Your task to perform on an android device: change keyboard looks Image 0: 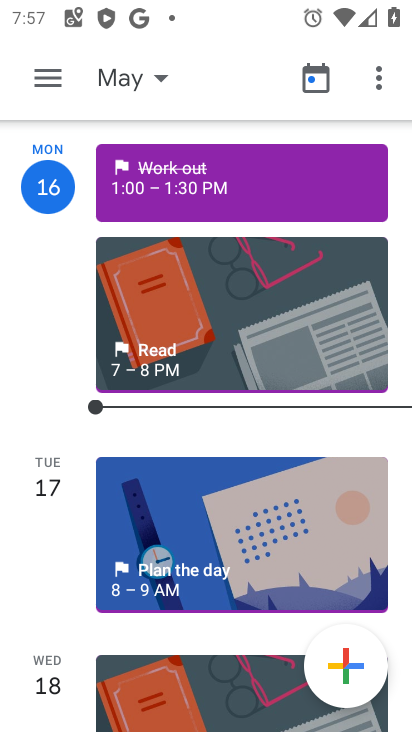
Step 0: press home button
Your task to perform on an android device: change keyboard looks Image 1: 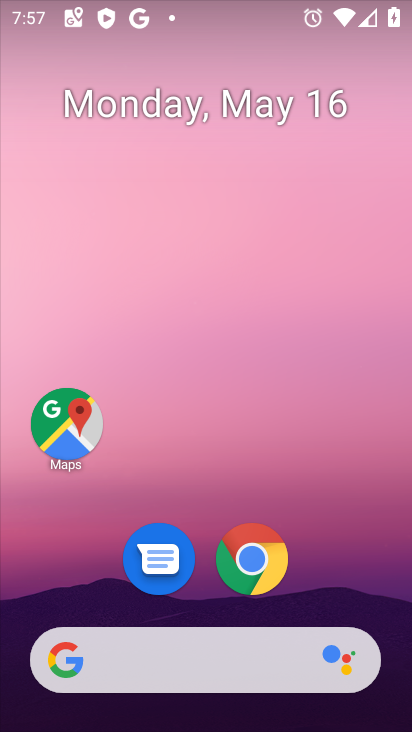
Step 1: drag from (303, 551) to (289, 198)
Your task to perform on an android device: change keyboard looks Image 2: 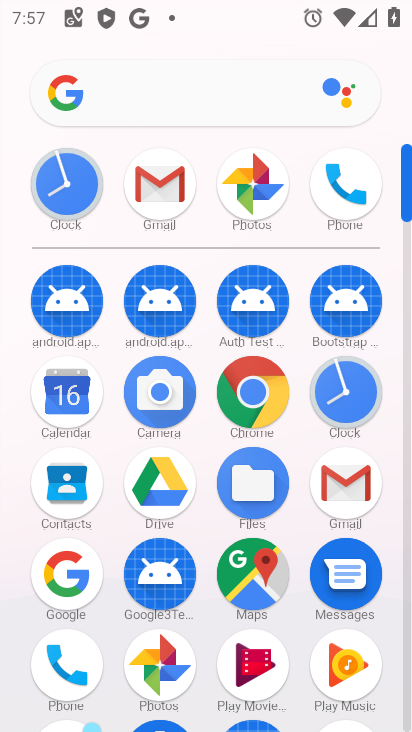
Step 2: drag from (158, 685) to (229, 318)
Your task to perform on an android device: change keyboard looks Image 3: 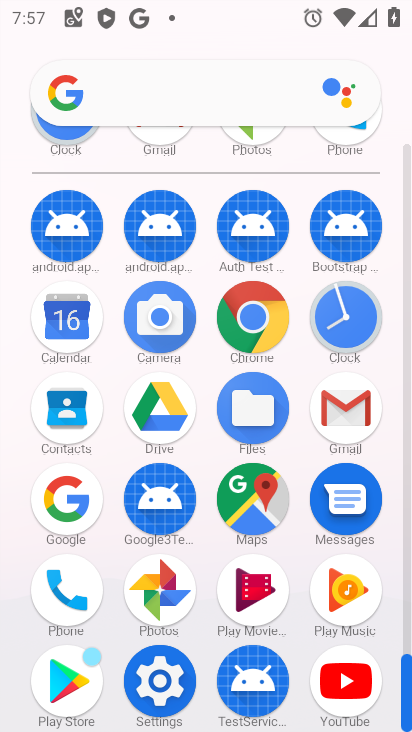
Step 3: click (170, 687)
Your task to perform on an android device: change keyboard looks Image 4: 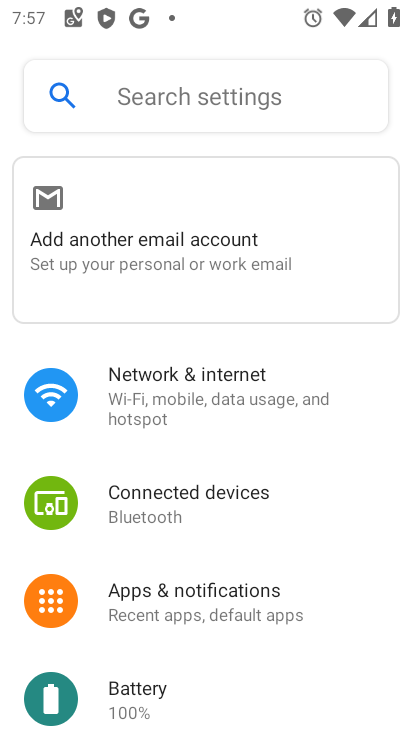
Step 4: drag from (245, 691) to (347, 225)
Your task to perform on an android device: change keyboard looks Image 5: 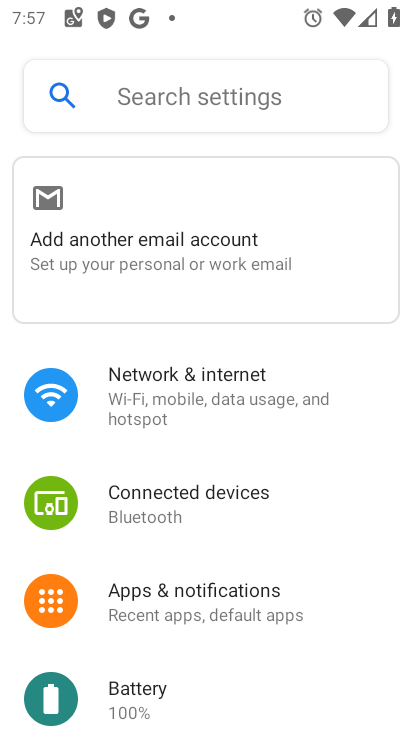
Step 5: drag from (254, 661) to (325, 181)
Your task to perform on an android device: change keyboard looks Image 6: 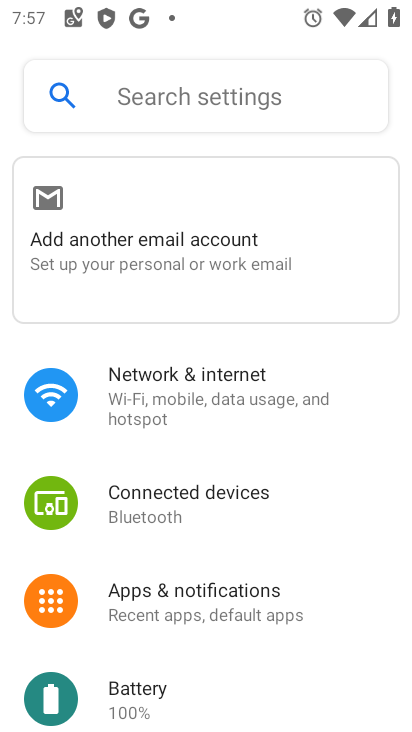
Step 6: drag from (235, 656) to (241, 216)
Your task to perform on an android device: change keyboard looks Image 7: 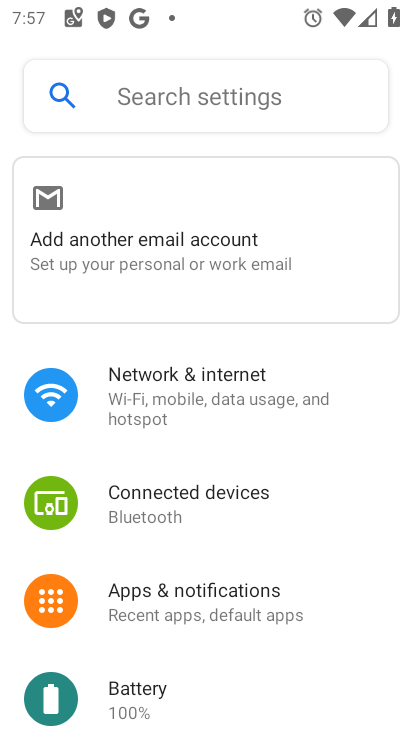
Step 7: drag from (311, 362) to (300, 640)
Your task to perform on an android device: change keyboard looks Image 8: 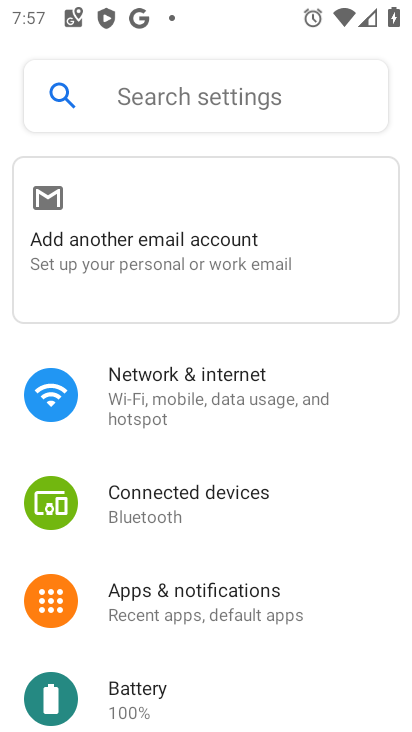
Step 8: drag from (307, 643) to (346, 155)
Your task to perform on an android device: change keyboard looks Image 9: 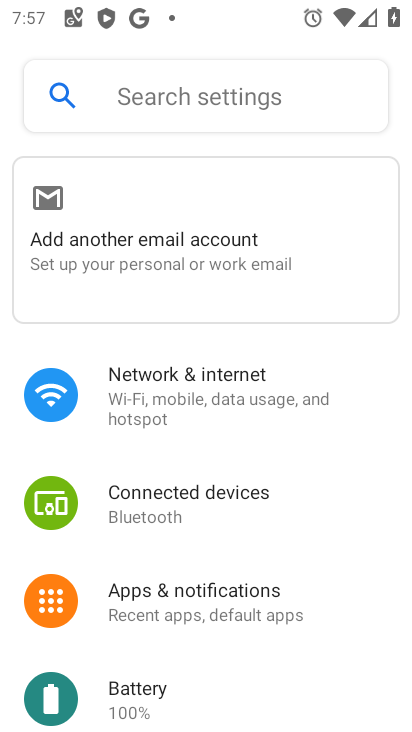
Step 9: drag from (225, 651) to (291, 165)
Your task to perform on an android device: change keyboard looks Image 10: 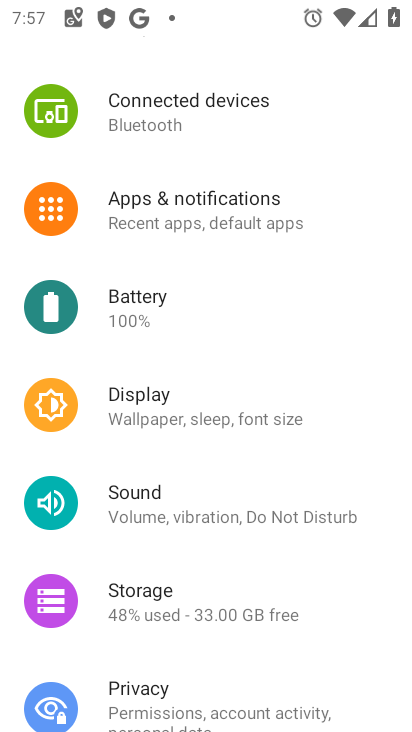
Step 10: drag from (181, 609) to (234, 274)
Your task to perform on an android device: change keyboard looks Image 11: 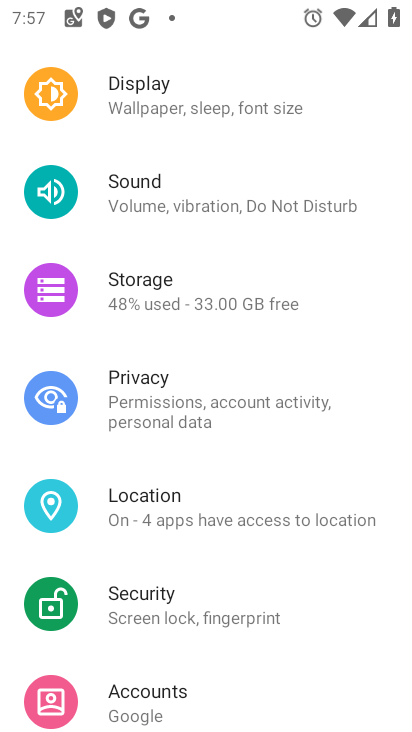
Step 11: drag from (176, 671) to (235, 170)
Your task to perform on an android device: change keyboard looks Image 12: 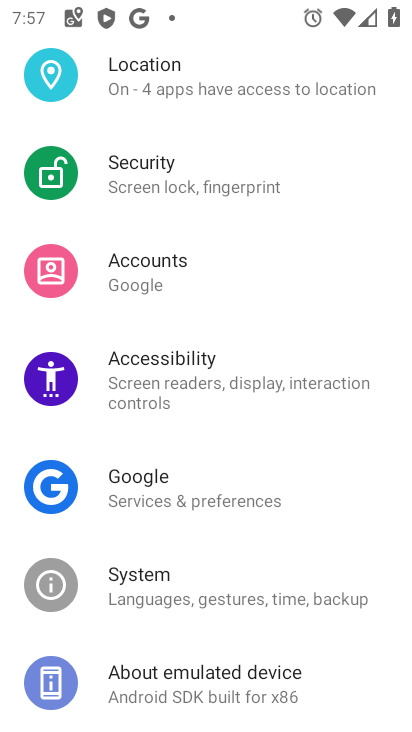
Step 12: click (175, 596)
Your task to perform on an android device: change keyboard looks Image 13: 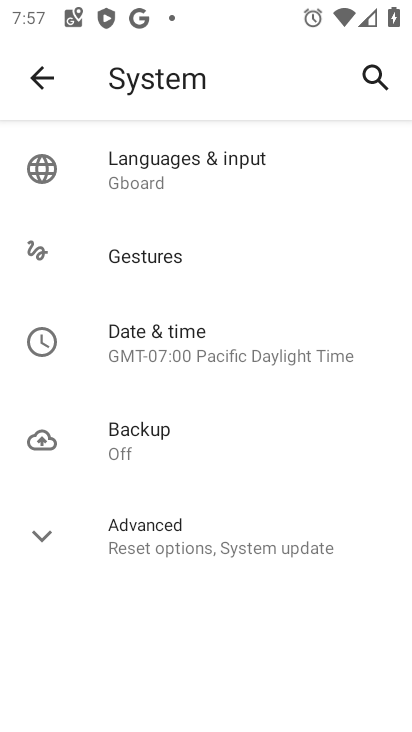
Step 13: click (189, 164)
Your task to perform on an android device: change keyboard looks Image 14: 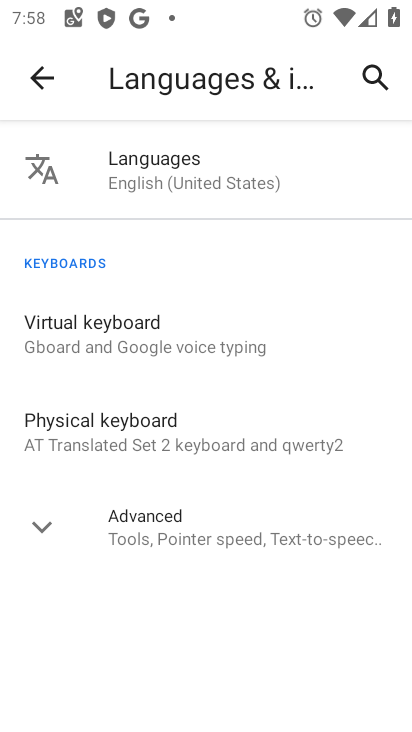
Step 14: click (186, 346)
Your task to perform on an android device: change keyboard looks Image 15: 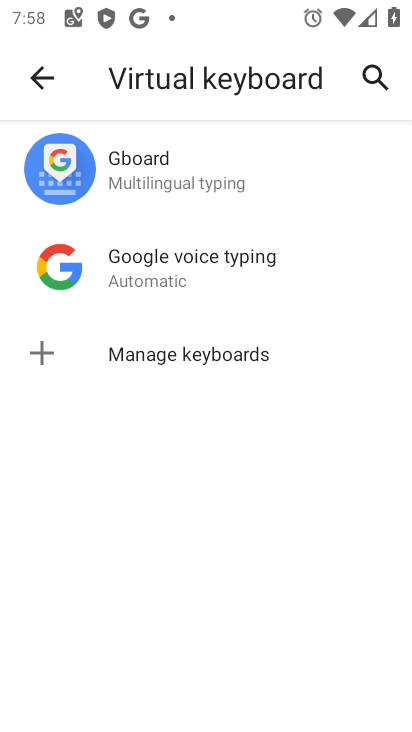
Step 15: click (169, 178)
Your task to perform on an android device: change keyboard looks Image 16: 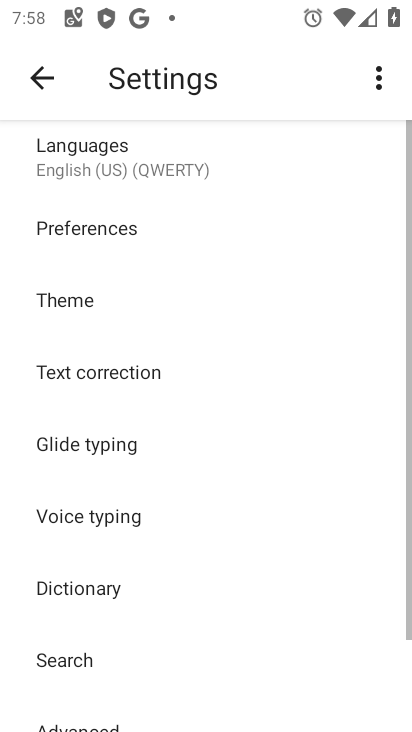
Step 16: click (136, 319)
Your task to perform on an android device: change keyboard looks Image 17: 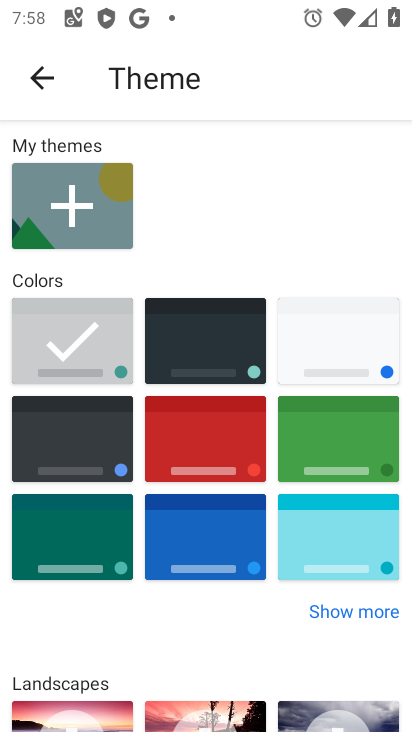
Step 17: click (185, 457)
Your task to perform on an android device: change keyboard looks Image 18: 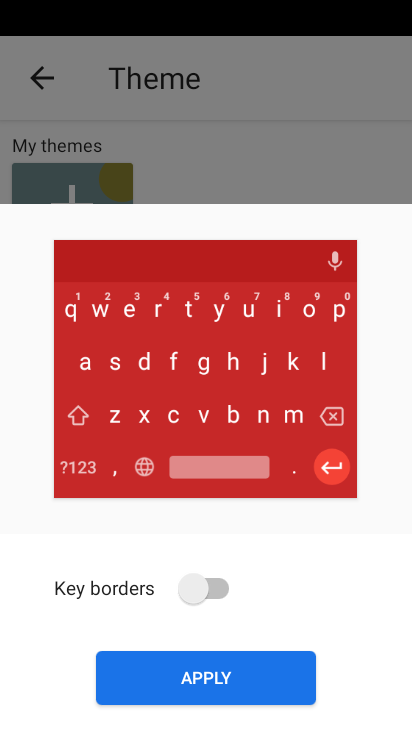
Step 18: click (241, 675)
Your task to perform on an android device: change keyboard looks Image 19: 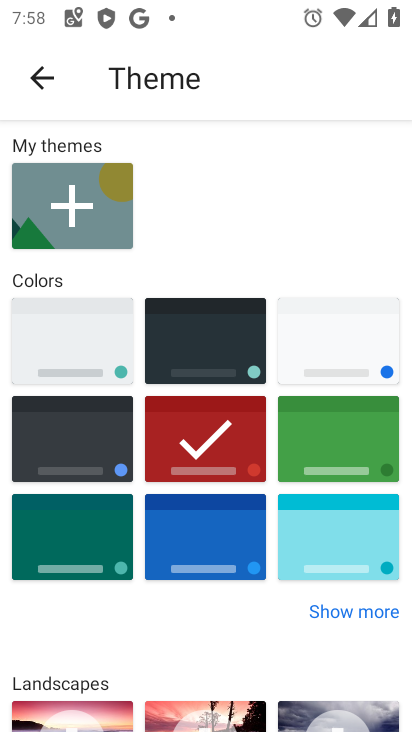
Step 19: task complete